Your task to perform on an android device: turn on wifi Image 0: 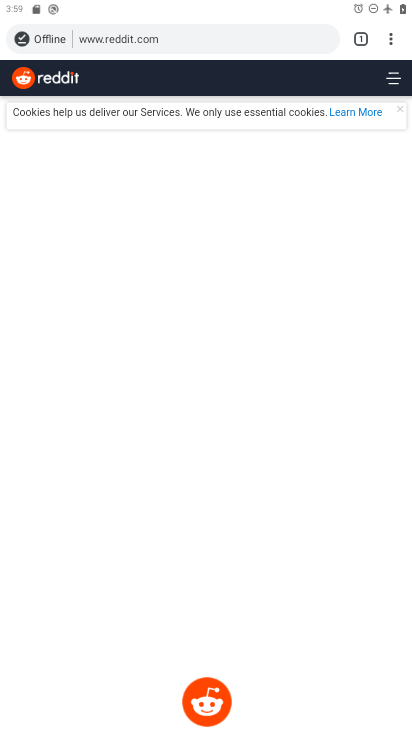
Step 0: press home button
Your task to perform on an android device: turn on wifi Image 1: 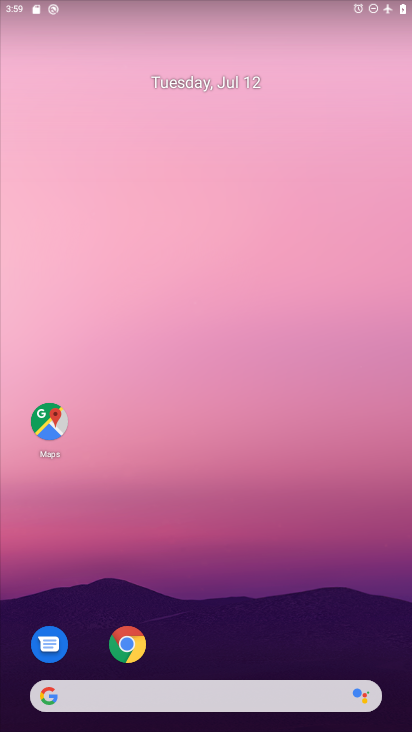
Step 1: drag from (266, 582) to (145, 72)
Your task to perform on an android device: turn on wifi Image 2: 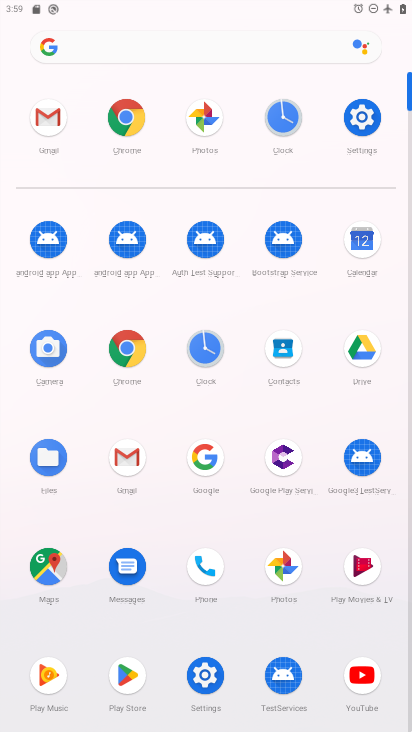
Step 2: click (367, 110)
Your task to perform on an android device: turn on wifi Image 3: 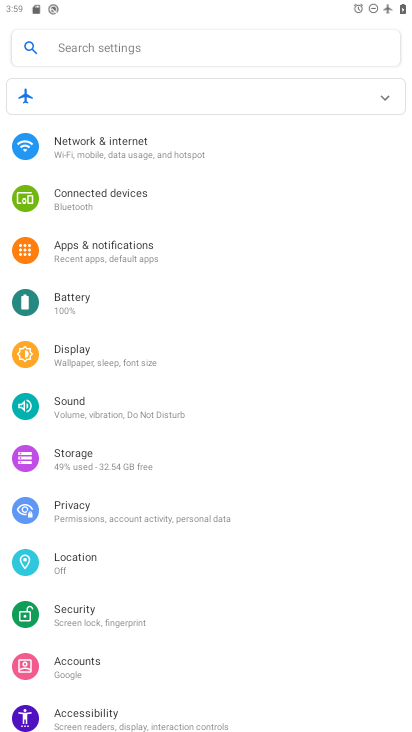
Step 3: click (148, 151)
Your task to perform on an android device: turn on wifi Image 4: 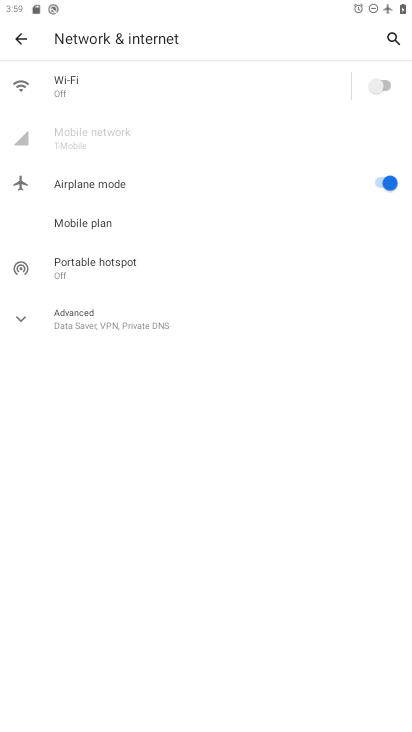
Step 4: click (381, 81)
Your task to perform on an android device: turn on wifi Image 5: 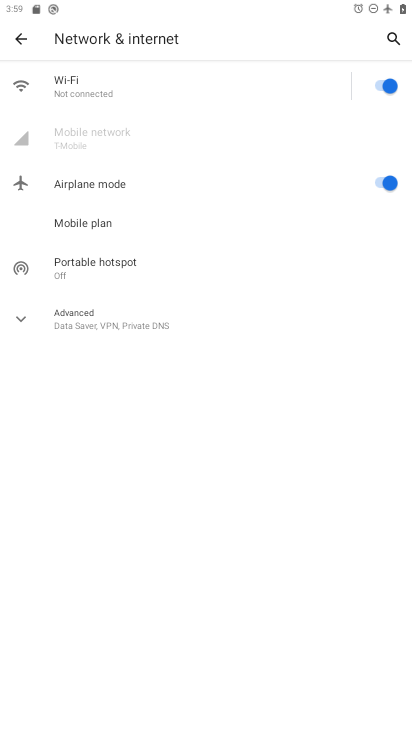
Step 5: task complete